Your task to perform on an android device: Show me the alarms in the clock app Image 0: 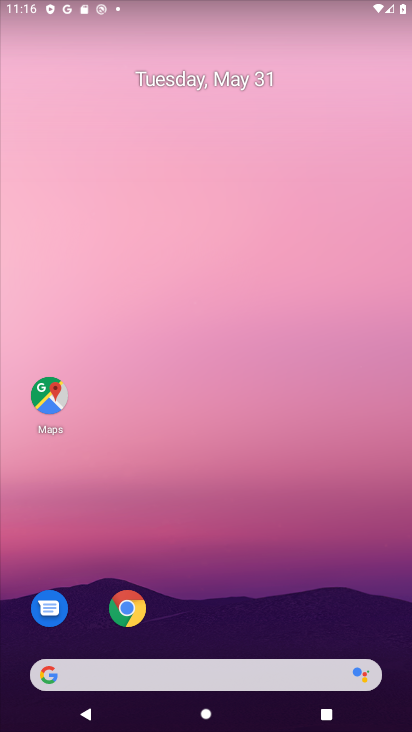
Step 0: drag from (194, 616) to (110, 42)
Your task to perform on an android device: Show me the alarms in the clock app Image 1: 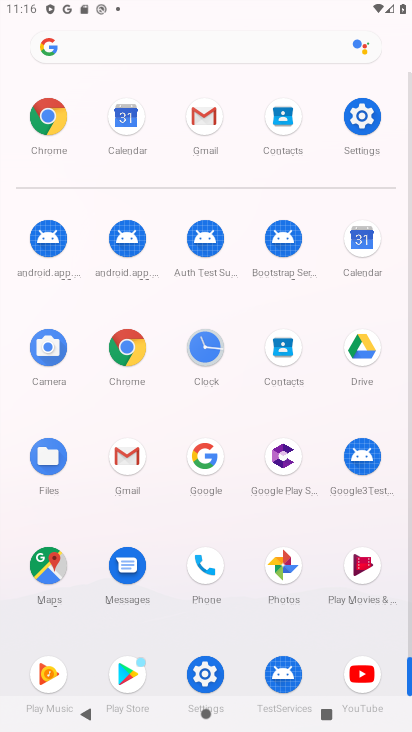
Step 1: click (196, 333)
Your task to perform on an android device: Show me the alarms in the clock app Image 2: 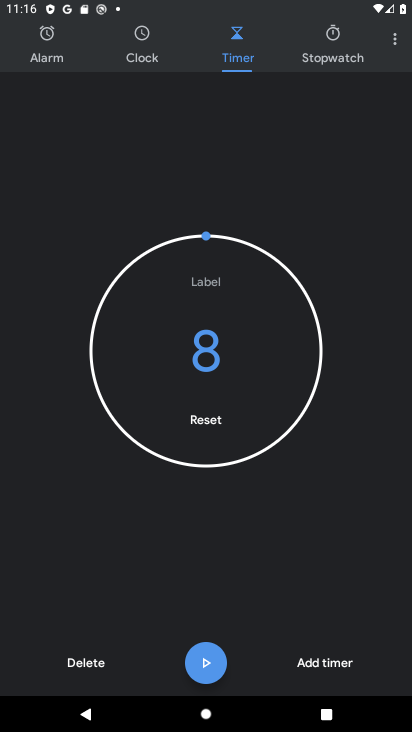
Step 2: click (53, 30)
Your task to perform on an android device: Show me the alarms in the clock app Image 3: 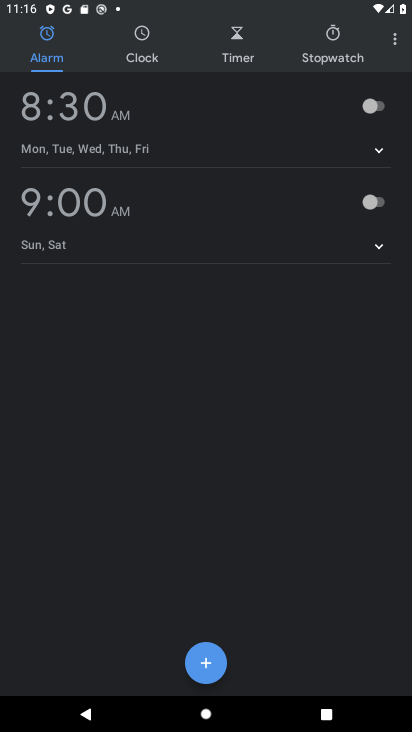
Step 3: task complete